Your task to perform on an android device: set an alarm Image 0: 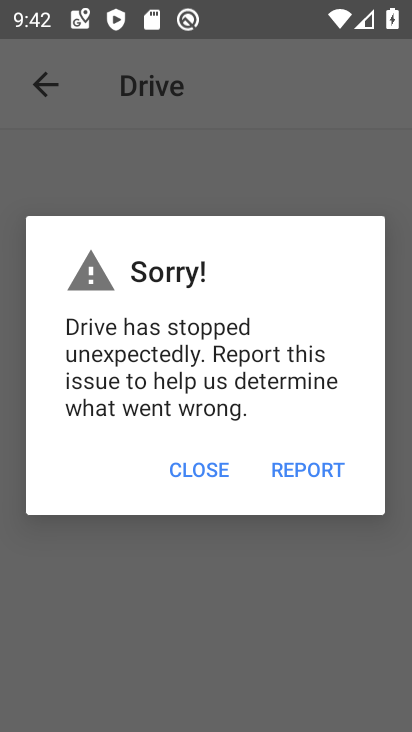
Step 0: press home button
Your task to perform on an android device: set an alarm Image 1: 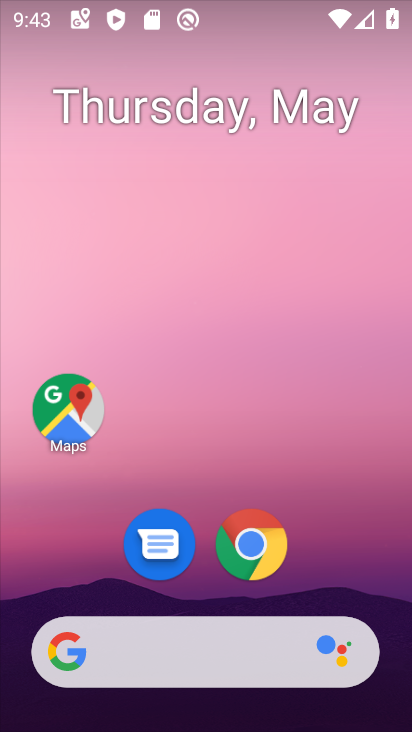
Step 1: drag from (177, 610) to (300, 179)
Your task to perform on an android device: set an alarm Image 2: 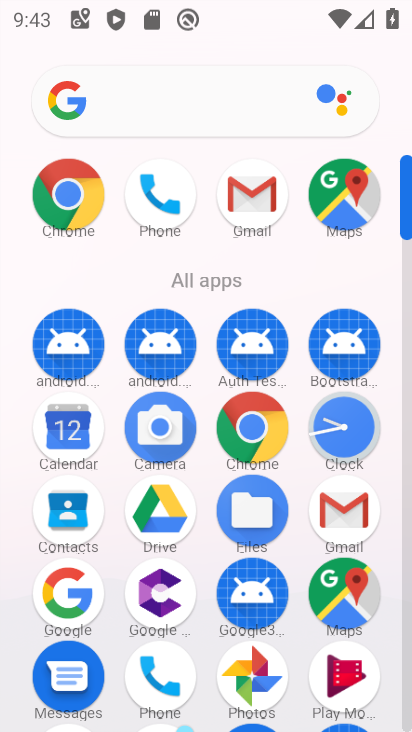
Step 2: click (344, 429)
Your task to perform on an android device: set an alarm Image 3: 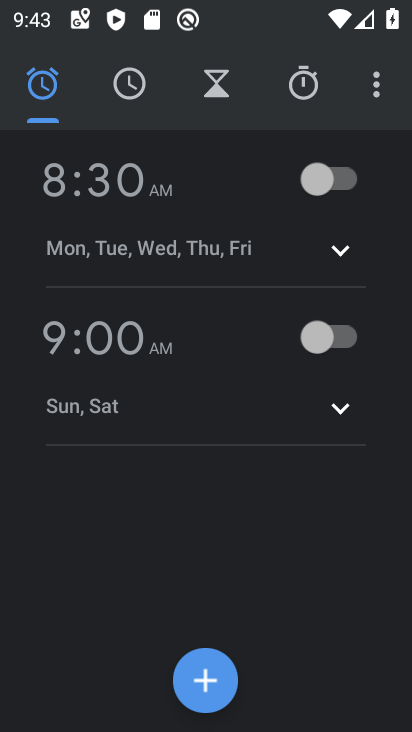
Step 3: click (337, 181)
Your task to perform on an android device: set an alarm Image 4: 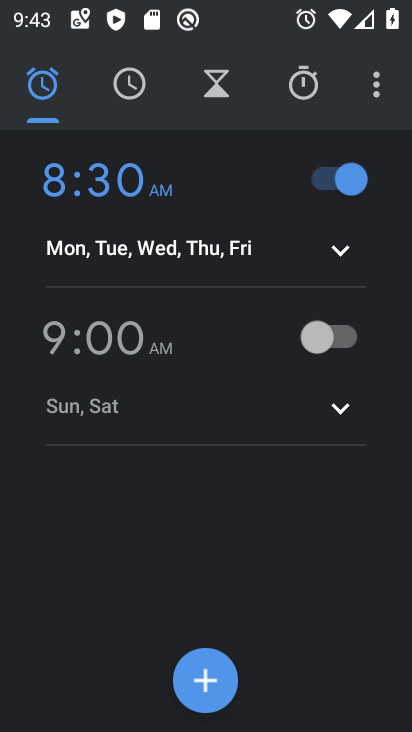
Step 4: task complete